Your task to perform on an android device: Search for a storage ottoman in the living room Image 0: 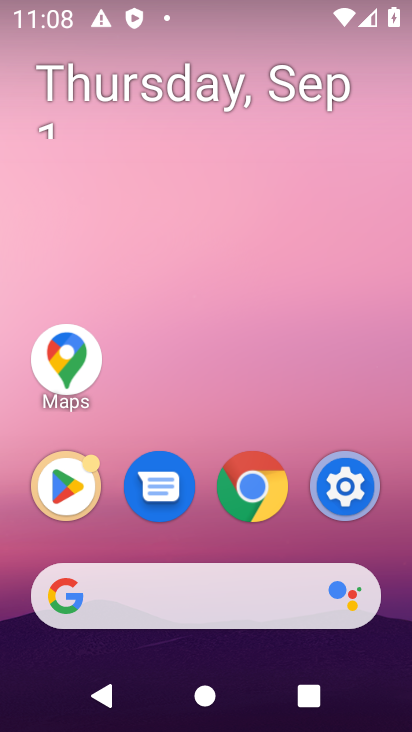
Step 0: click (256, 497)
Your task to perform on an android device: Search for a storage ottoman in the living room Image 1: 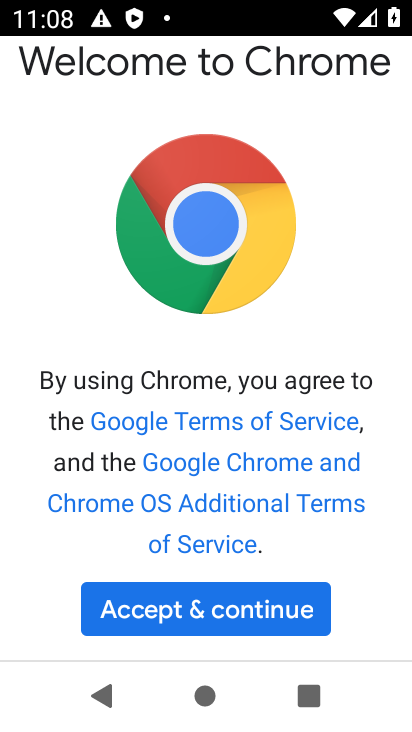
Step 1: click (220, 612)
Your task to perform on an android device: Search for a storage ottoman in the living room Image 2: 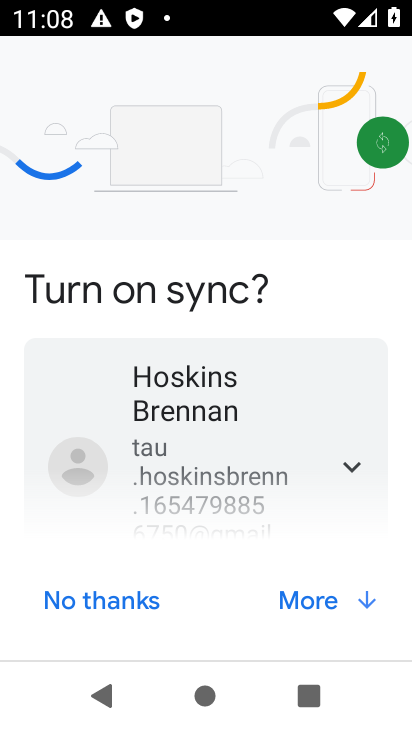
Step 2: click (299, 198)
Your task to perform on an android device: Search for a storage ottoman in the living room Image 3: 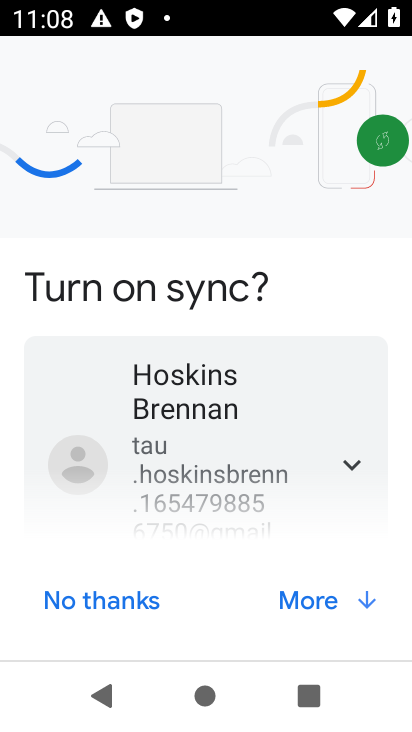
Step 3: click (310, 600)
Your task to perform on an android device: Search for a storage ottoman in the living room Image 4: 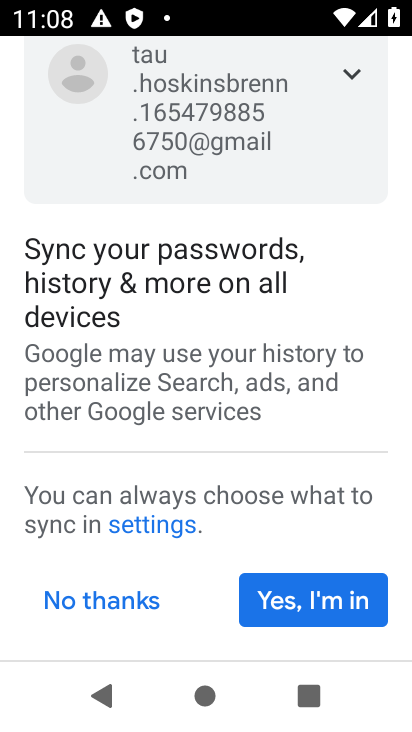
Step 4: click (310, 600)
Your task to perform on an android device: Search for a storage ottoman in the living room Image 5: 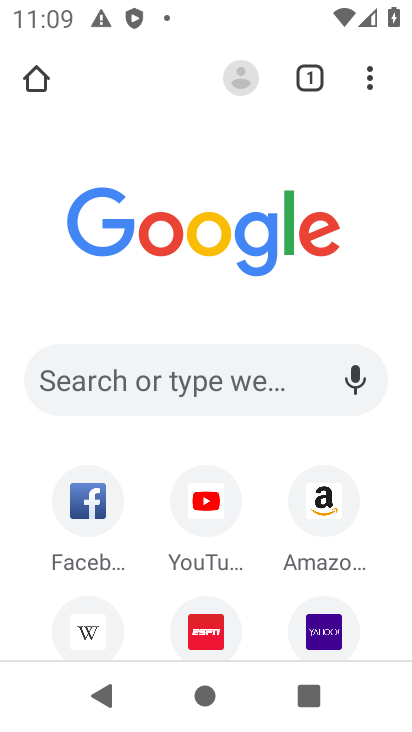
Step 5: click (157, 391)
Your task to perform on an android device: Search for a storage ottoman in the living room Image 6: 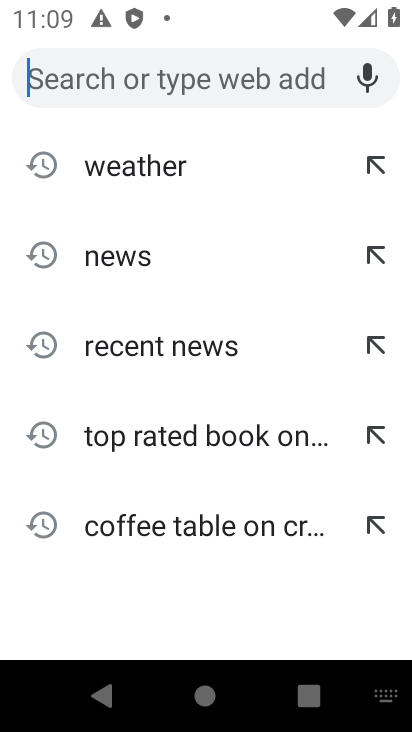
Step 6: type "storage ottoman in the living room"
Your task to perform on an android device: Search for a storage ottoman in the living room Image 7: 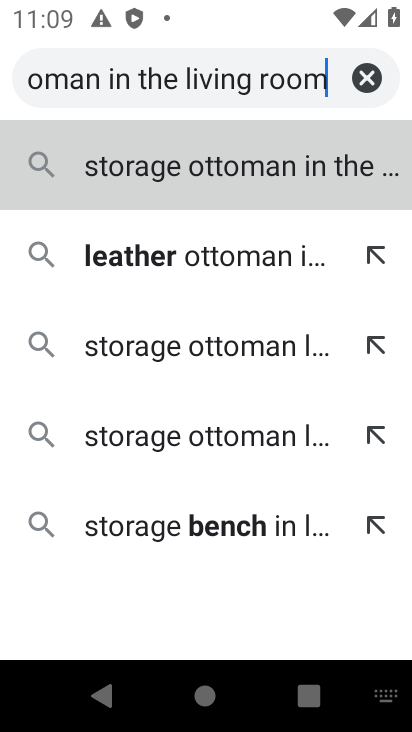
Step 7: click (155, 165)
Your task to perform on an android device: Search for a storage ottoman in the living room Image 8: 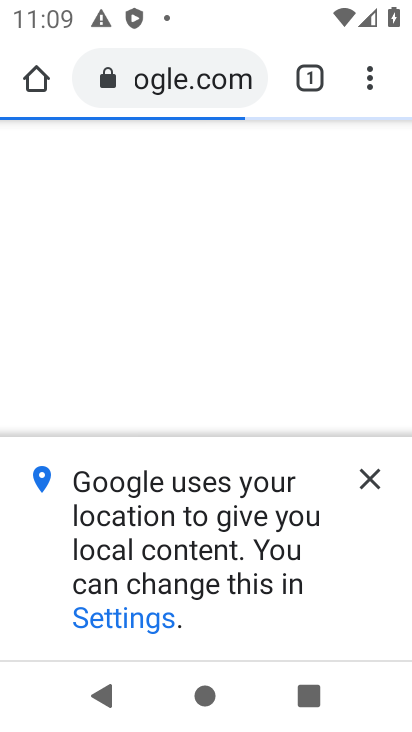
Step 8: click (377, 481)
Your task to perform on an android device: Search for a storage ottoman in the living room Image 9: 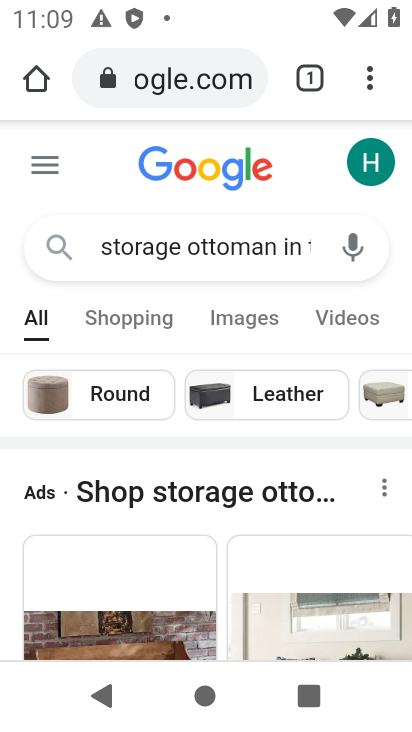
Step 9: task complete